Your task to perform on an android device: turn on the 12-hour format for clock Image 0: 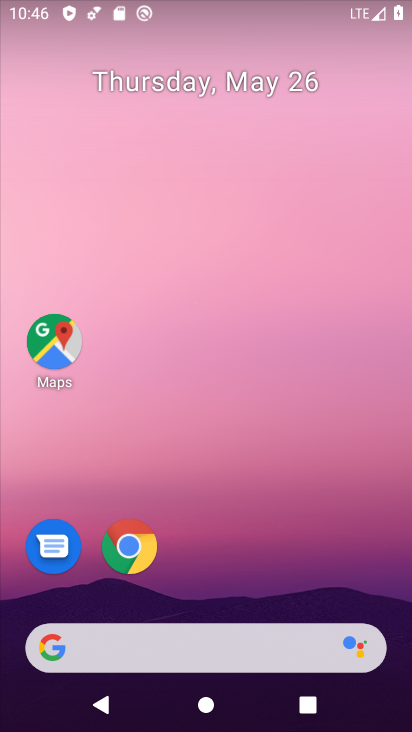
Step 0: drag from (268, 477) to (281, 122)
Your task to perform on an android device: turn on the 12-hour format for clock Image 1: 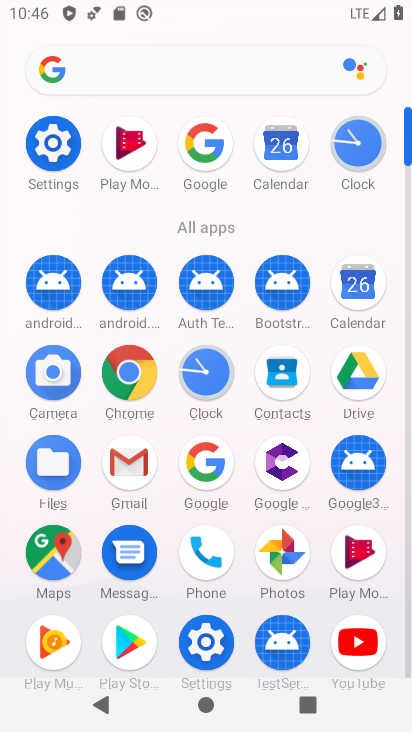
Step 1: click (210, 373)
Your task to perform on an android device: turn on the 12-hour format for clock Image 2: 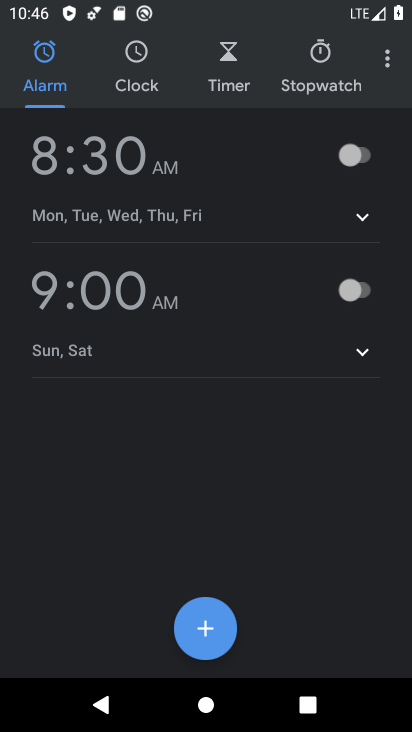
Step 2: click (383, 51)
Your task to perform on an android device: turn on the 12-hour format for clock Image 3: 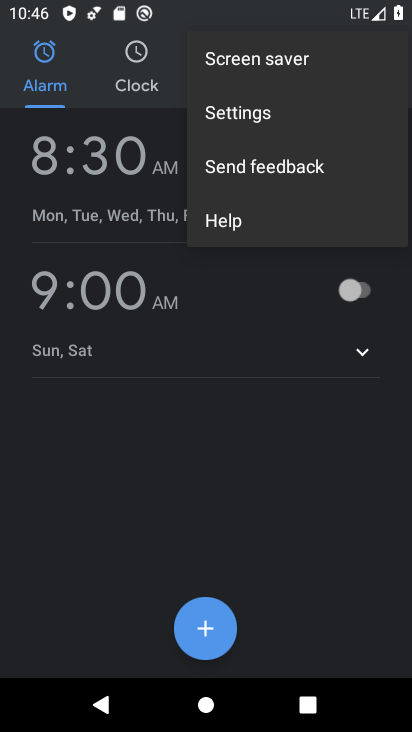
Step 3: click (238, 103)
Your task to perform on an android device: turn on the 12-hour format for clock Image 4: 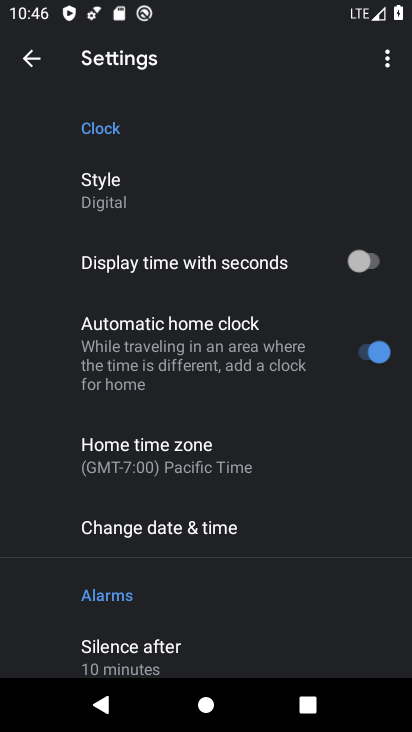
Step 4: click (182, 530)
Your task to perform on an android device: turn on the 12-hour format for clock Image 5: 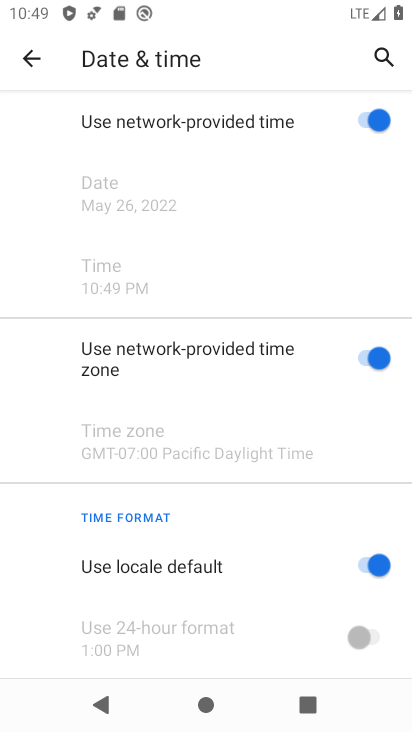
Step 5: task complete